Your task to perform on an android device: uninstall "Grab" Image 0: 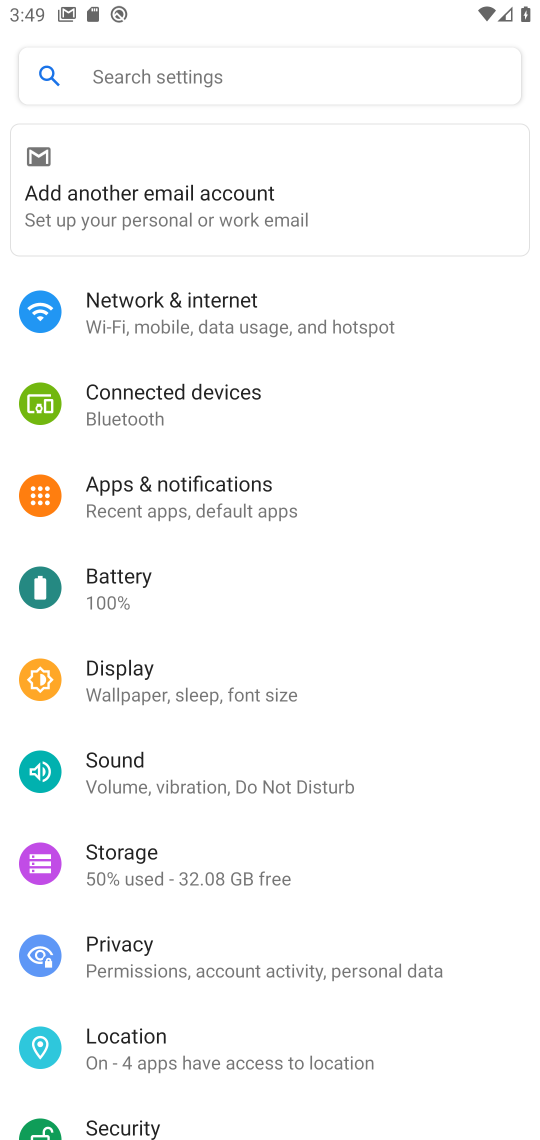
Step 0: press home button
Your task to perform on an android device: uninstall "Grab" Image 1: 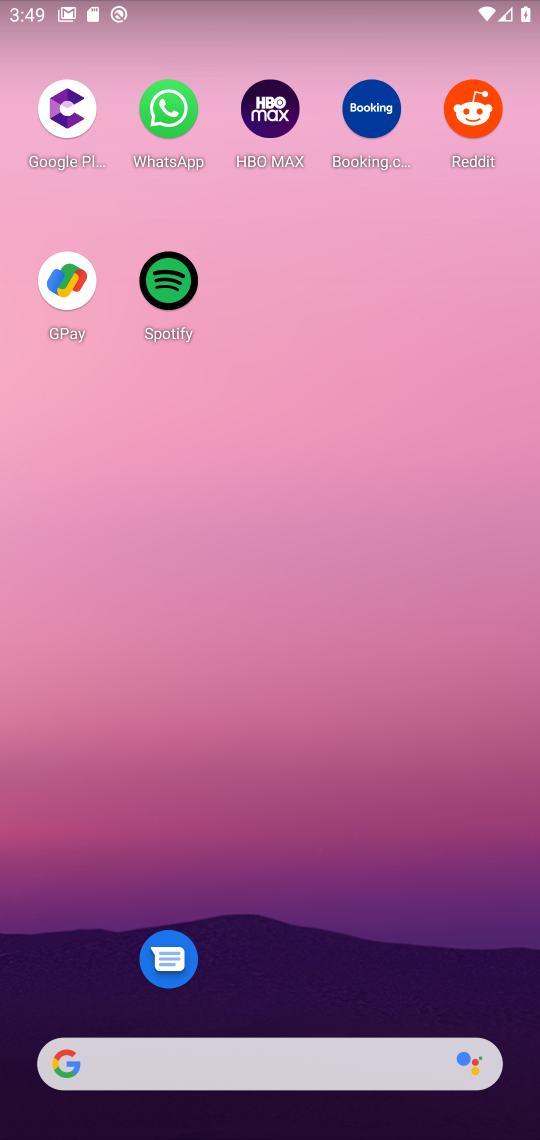
Step 1: task complete